Your task to perform on an android device: turn on airplane mode Image 0: 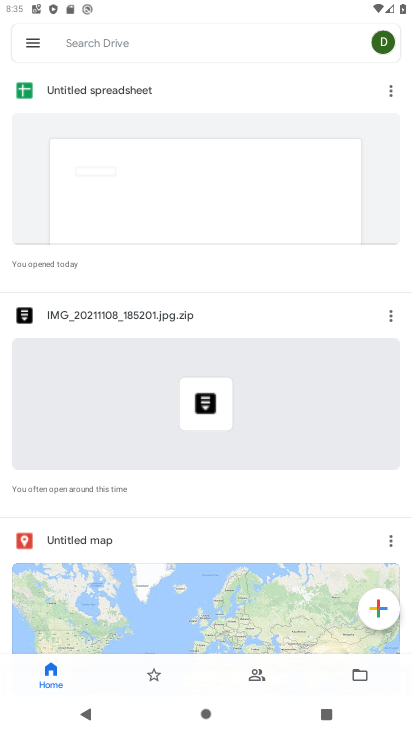
Step 0: press home button
Your task to perform on an android device: turn on airplane mode Image 1: 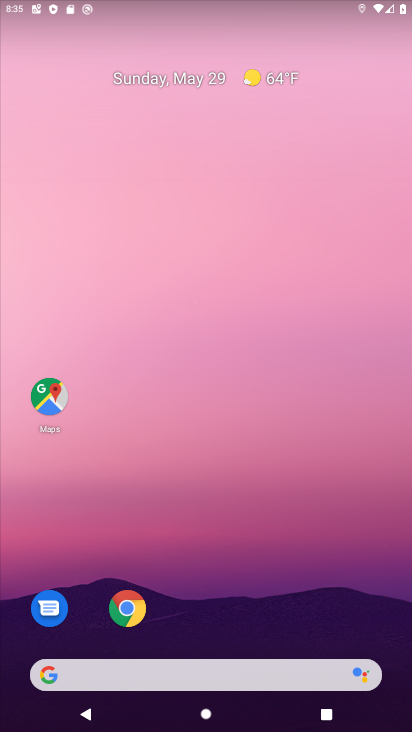
Step 1: drag from (215, 577) to (137, 307)
Your task to perform on an android device: turn on airplane mode Image 2: 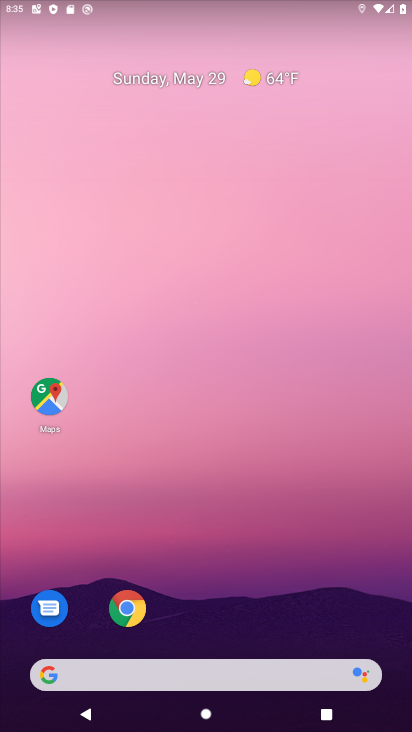
Step 2: drag from (223, 529) to (170, 47)
Your task to perform on an android device: turn on airplane mode Image 3: 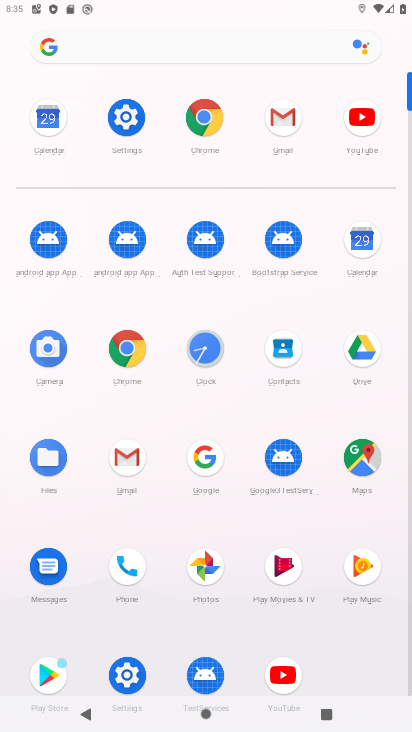
Step 3: click (130, 110)
Your task to perform on an android device: turn on airplane mode Image 4: 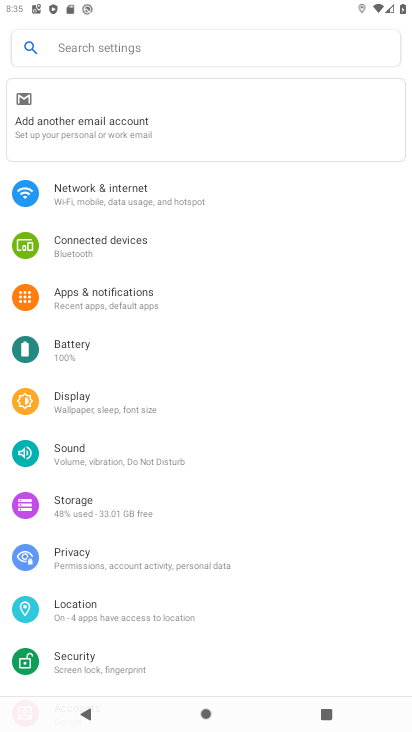
Step 4: click (113, 199)
Your task to perform on an android device: turn on airplane mode Image 5: 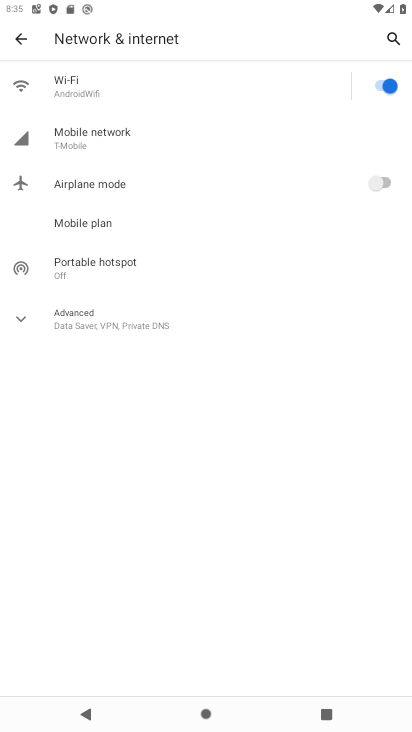
Step 5: click (372, 179)
Your task to perform on an android device: turn on airplane mode Image 6: 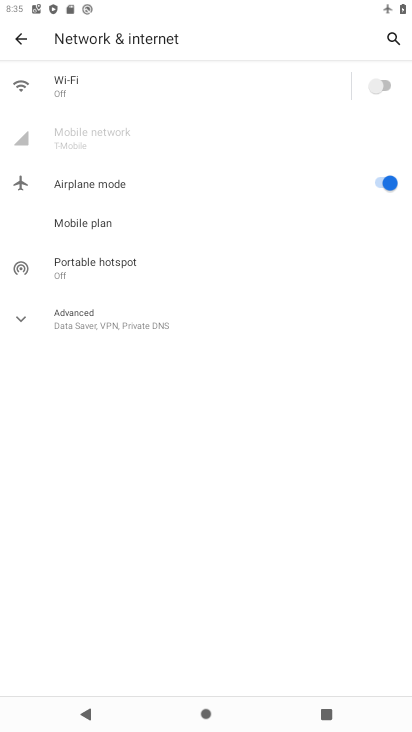
Step 6: task complete